Your task to perform on an android device: Open Google Image 0: 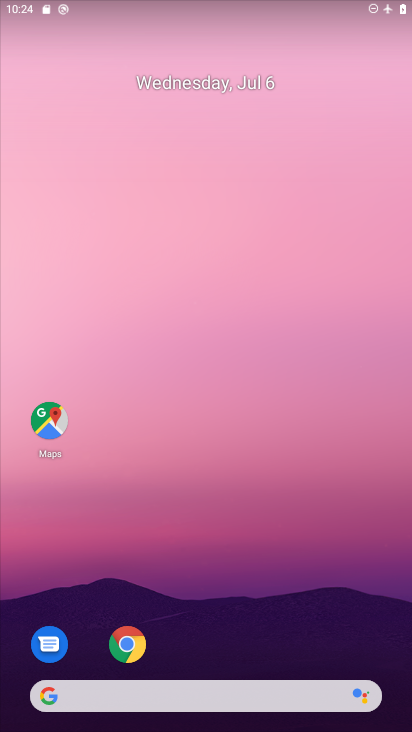
Step 0: drag from (188, 645) to (193, 27)
Your task to perform on an android device: Open Google Image 1: 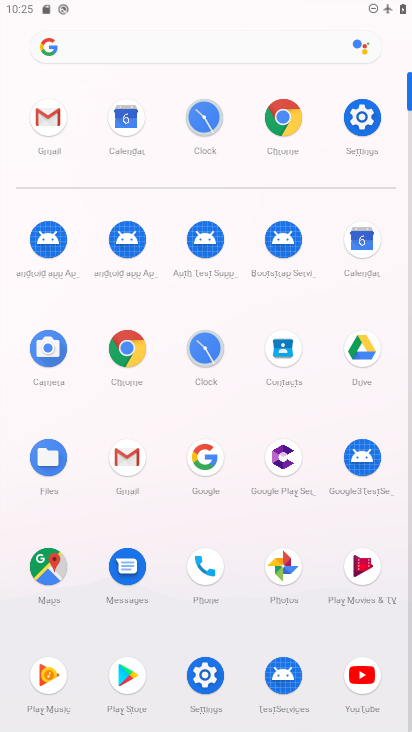
Step 1: click (199, 443)
Your task to perform on an android device: Open Google Image 2: 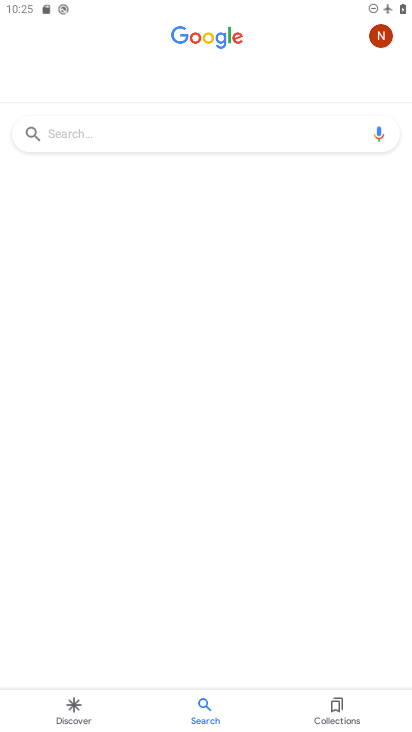
Step 2: task complete